Your task to perform on an android device: open chrome and create a bookmark for the current page Image 0: 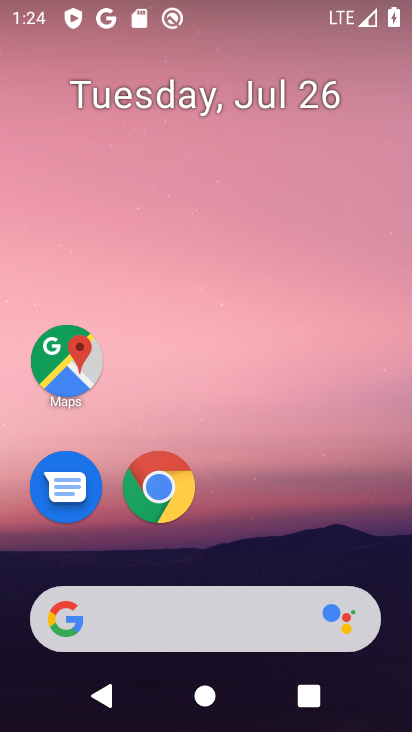
Step 0: drag from (191, 538) to (196, 40)
Your task to perform on an android device: open chrome and create a bookmark for the current page Image 1: 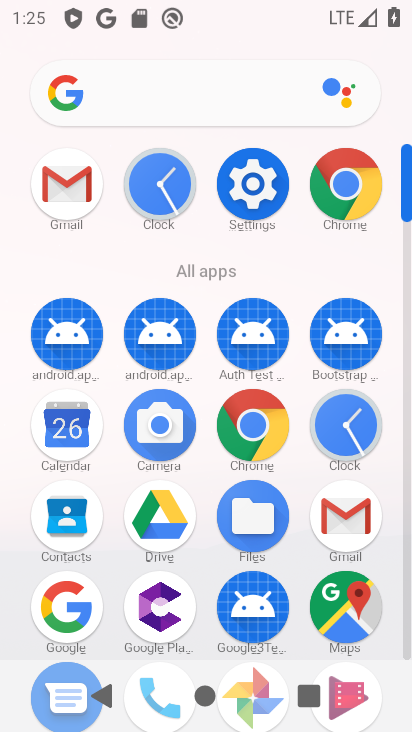
Step 1: drag from (187, 564) to (192, 242)
Your task to perform on an android device: open chrome and create a bookmark for the current page Image 2: 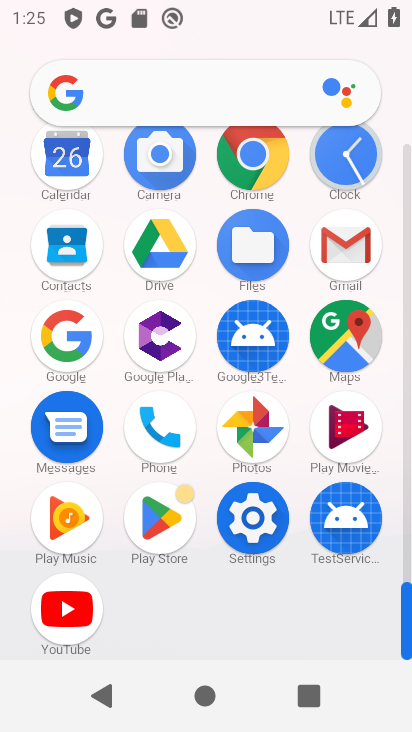
Step 2: click (246, 187)
Your task to perform on an android device: open chrome and create a bookmark for the current page Image 3: 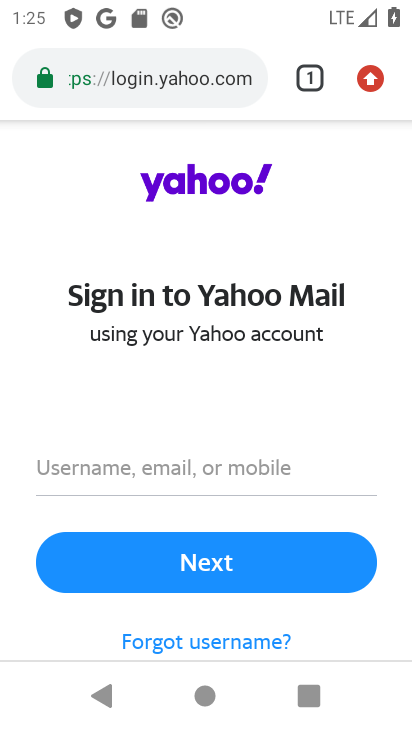
Step 3: click (372, 87)
Your task to perform on an android device: open chrome and create a bookmark for the current page Image 4: 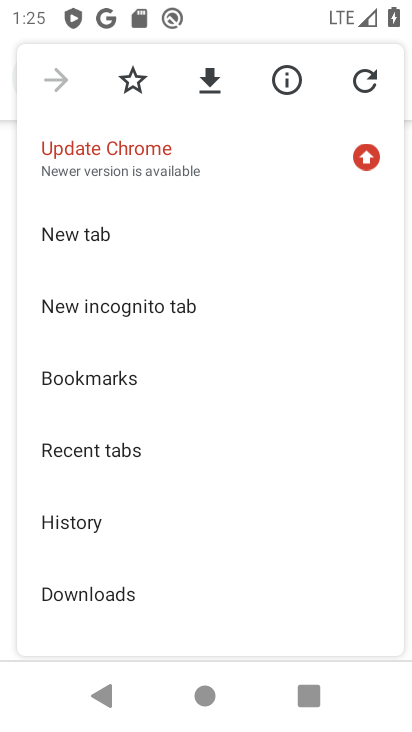
Step 4: drag from (224, 454) to (232, 327)
Your task to perform on an android device: open chrome and create a bookmark for the current page Image 5: 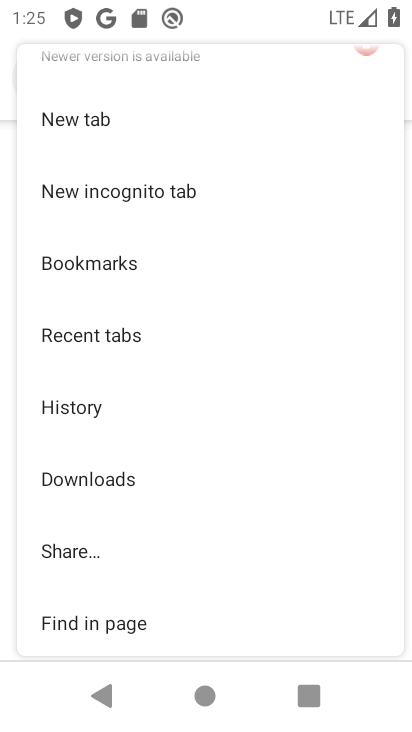
Step 5: drag from (110, 605) to (147, 191)
Your task to perform on an android device: open chrome and create a bookmark for the current page Image 6: 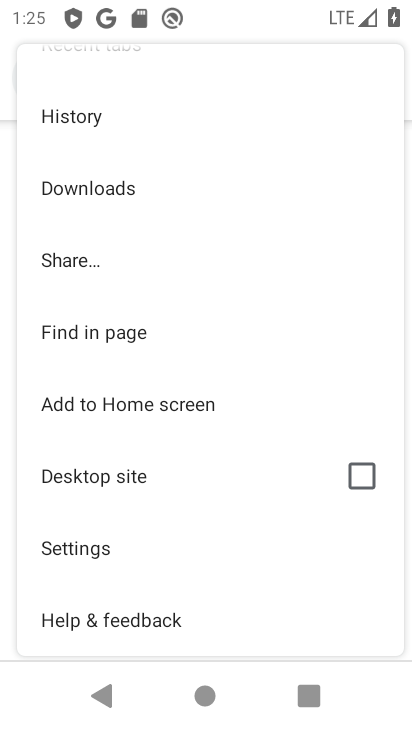
Step 6: drag from (255, 260) to (252, 636)
Your task to perform on an android device: open chrome and create a bookmark for the current page Image 7: 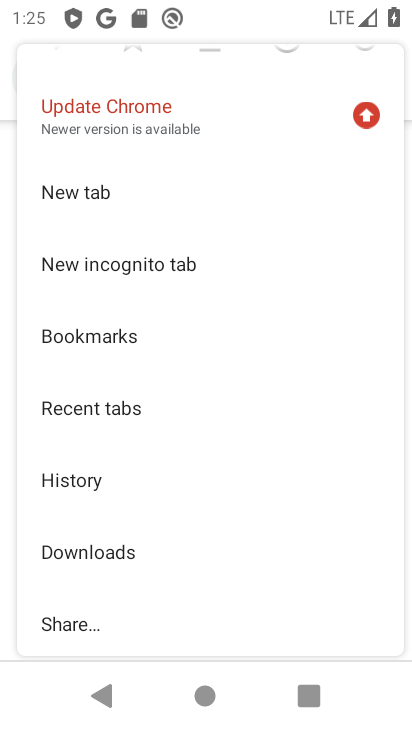
Step 7: drag from (197, 260) to (209, 525)
Your task to perform on an android device: open chrome and create a bookmark for the current page Image 8: 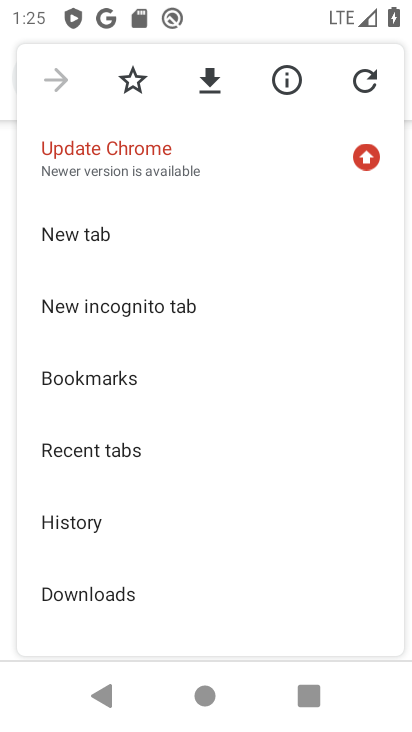
Step 8: click (139, 85)
Your task to perform on an android device: open chrome and create a bookmark for the current page Image 9: 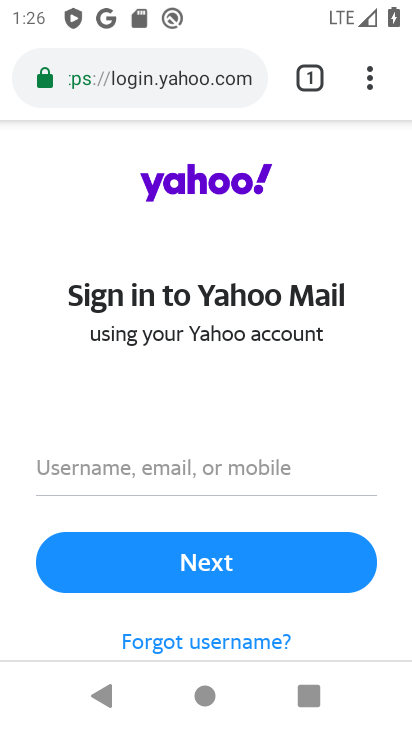
Step 9: task complete